Your task to perform on an android device: Go to privacy settings Image 0: 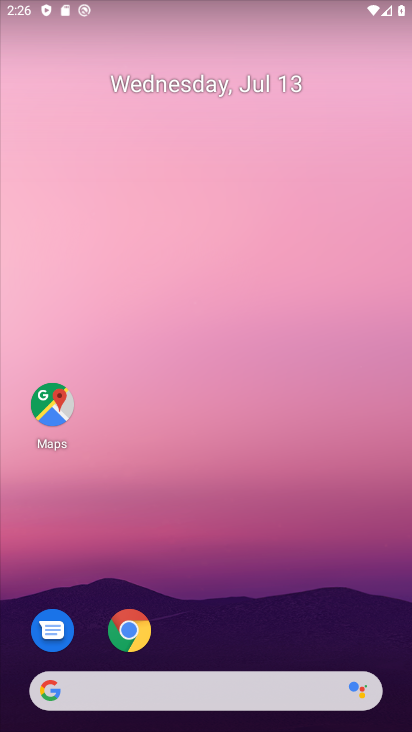
Step 0: drag from (272, 602) to (189, 210)
Your task to perform on an android device: Go to privacy settings Image 1: 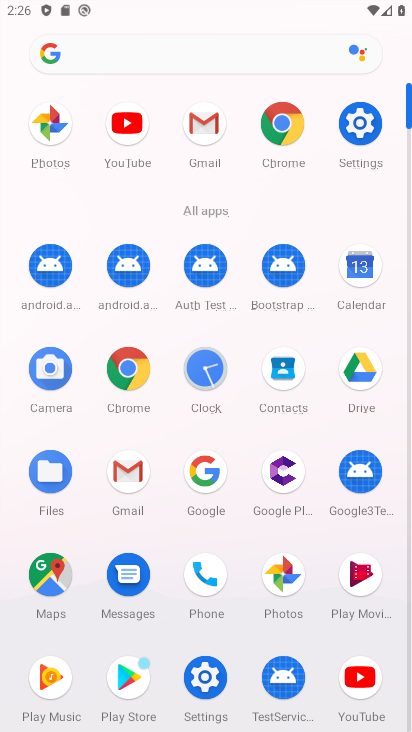
Step 1: click (353, 118)
Your task to perform on an android device: Go to privacy settings Image 2: 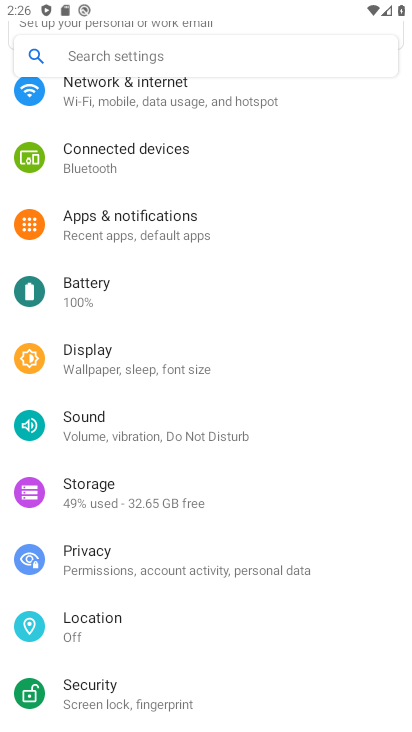
Step 2: click (185, 566)
Your task to perform on an android device: Go to privacy settings Image 3: 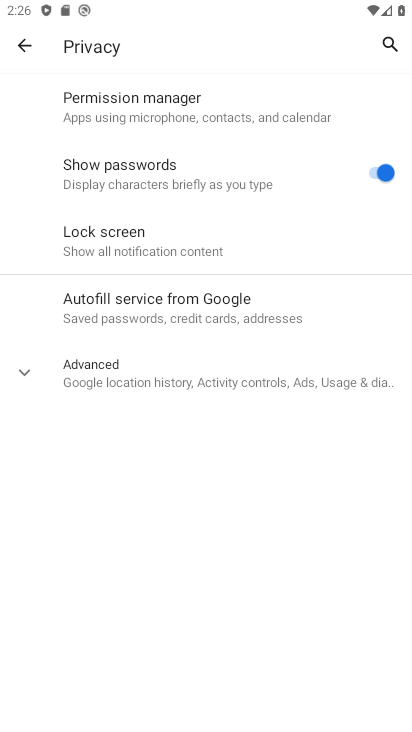
Step 3: task complete